Your task to perform on an android device: toggle show notifications on the lock screen Image 0: 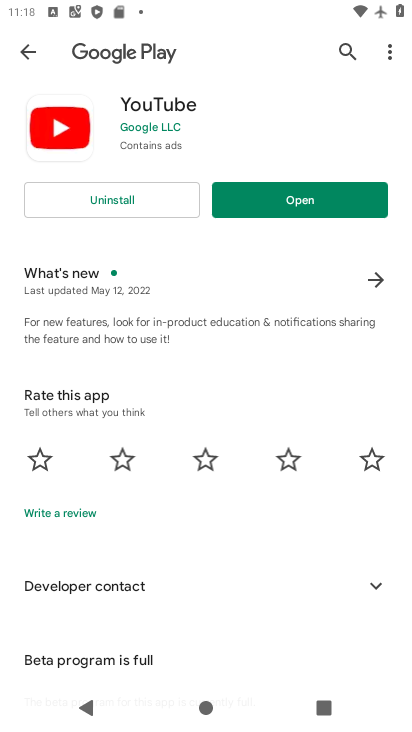
Step 0: press home button
Your task to perform on an android device: toggle show notifications on the lock screen Image 1: 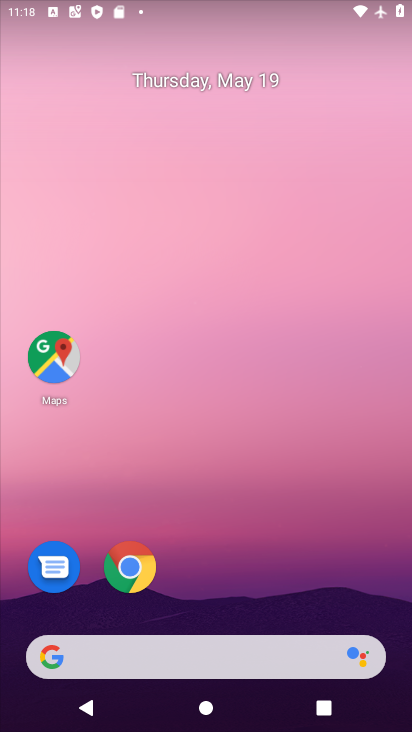
Step 1: drag from (375, 613) to (363, 20)
Your task to perform on an android device: toggle show notifications on the lock screen Image 2: 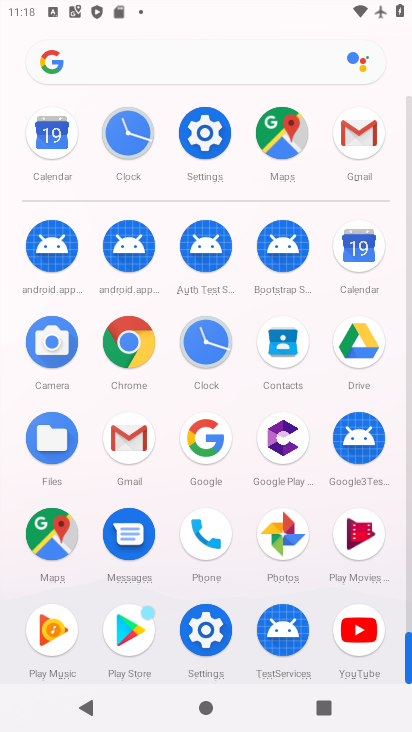
Step 2: click (204, 630)
Your task to perform on an android device: toggle show notifications on the lock screen Image 3: 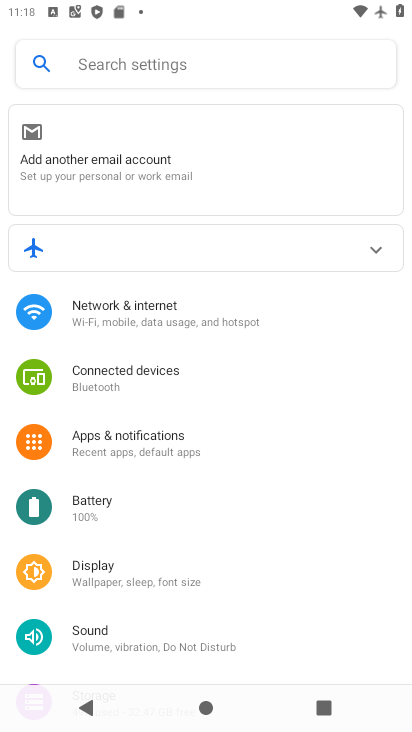
Step 3: drag from (229, 652) to (255, 160)
Your task to perform on an android device: toggle show notifications on the lock screen Image 4: 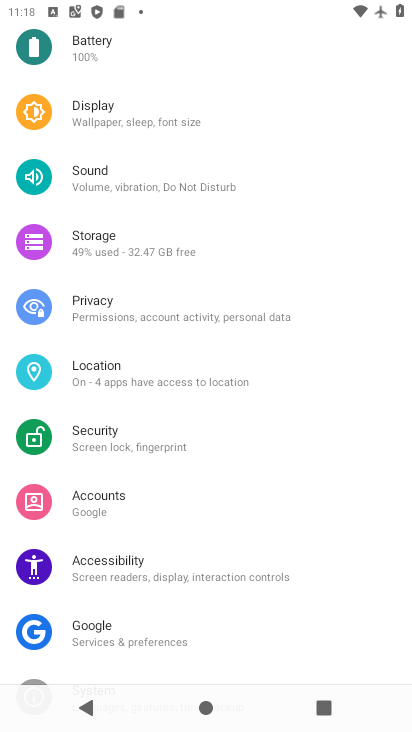
Step 4: drag from (281, 71) to (302, 494)
Your task to perform on an android device: toggle show notifications on the lock screen Image 5: 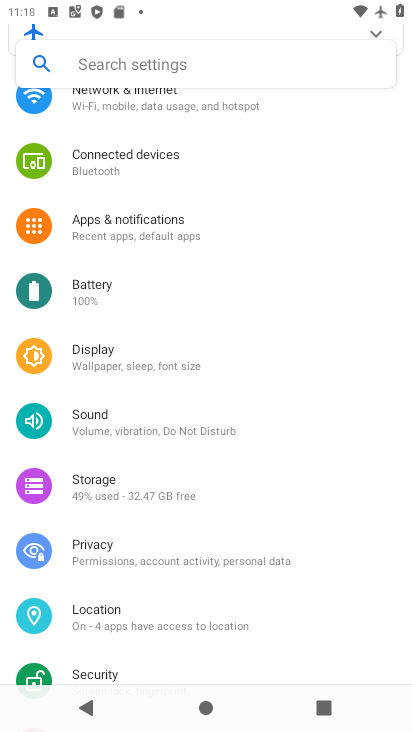
Step 5: click (109, 220)
Your task to perform on an android device: toggle show notifications on the lock screen Image 6: 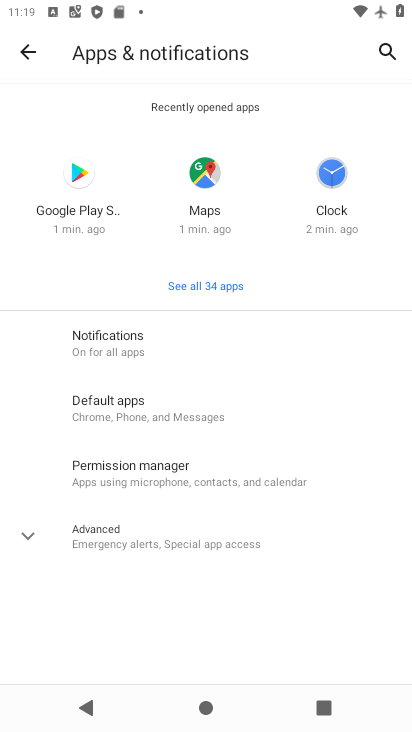
Step 6: click (118, 339)
Your task to perform on an android device: toggle show notifications on the lock screen Image 7: 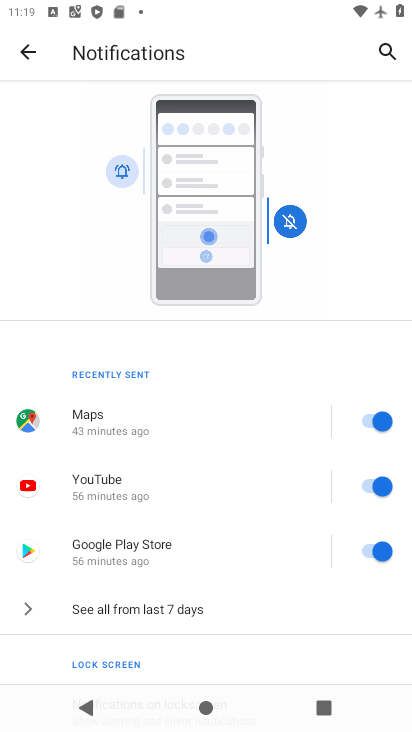
Step 7: drag from (304, 668) to (241, 77)
Your task to perform on an android device: toggle show notifications on the lock screen Image 8: 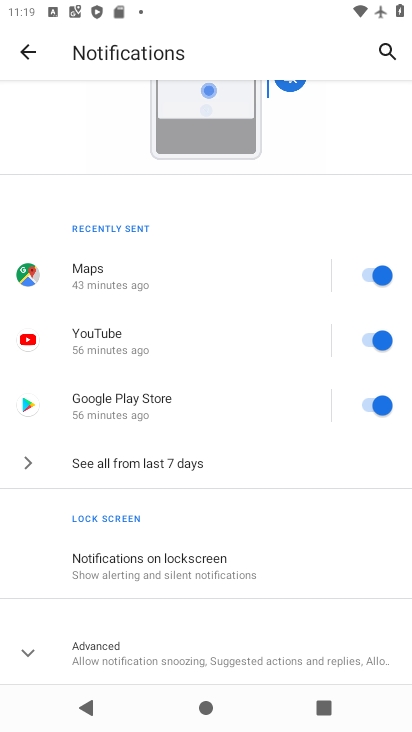
Step 8: click (177, 554)
Your task to perform on an android device: toggle show notifications on the lock screen Image 9: 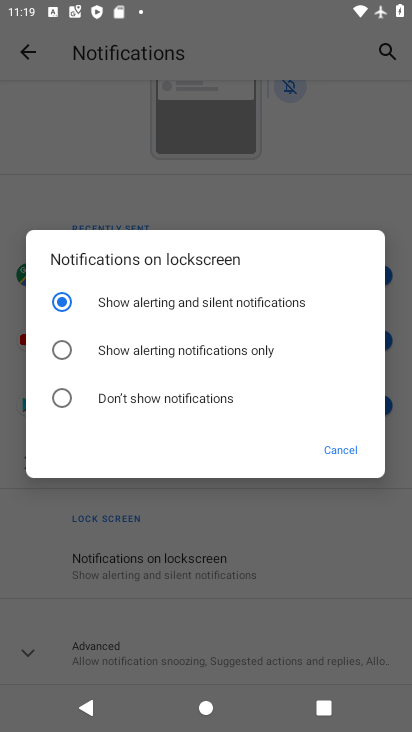
Step 9: task complete